Your task to perform on an android device: delete the emails in spam in the gmail app Image 0: 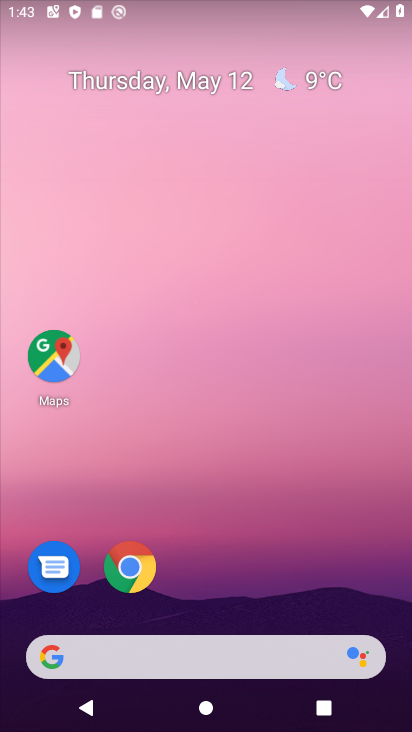
Step 0: drag from (228, 606) to (252, 0)
Your task to perform on an android device: delete the emails in spam in the gmail app Image 1: 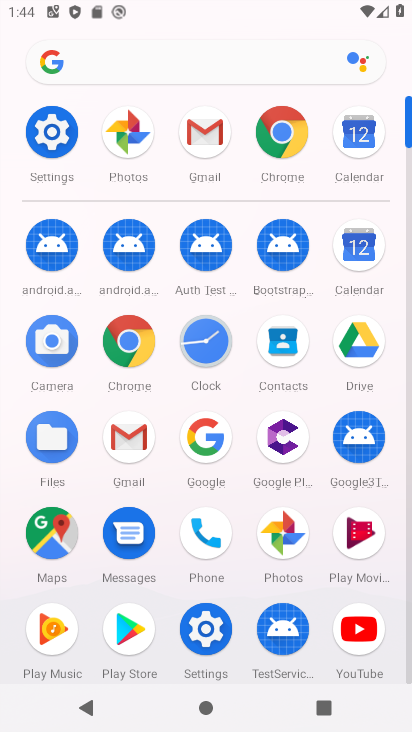
Step 1: click (136, 427)
Your task to perform on an android device: delete the emails in spam in the gmail app Image 2: 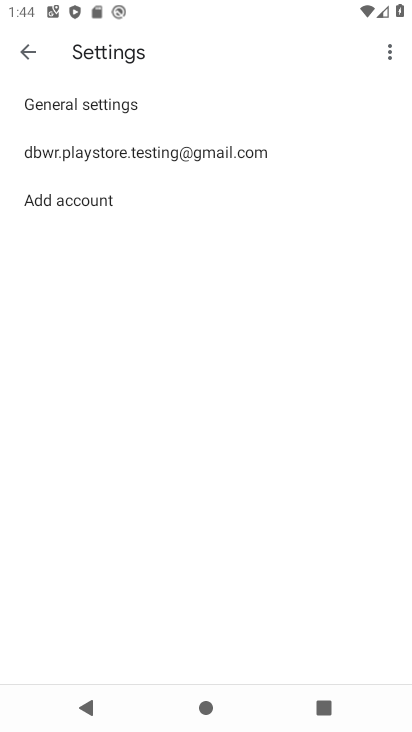
Step 2: click (20, 50)
Your task to perform on an android device: delete the emails in spam in the gmail app Image 3: 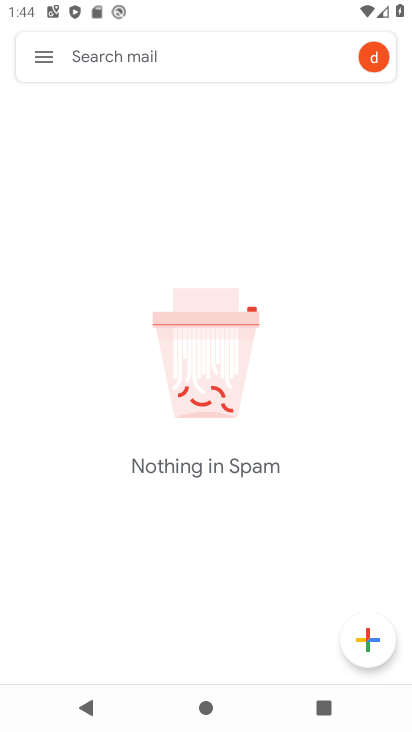
Step 3: task complete